Your task to perform on an android device: Show me popular games on the Play Store Image 0: 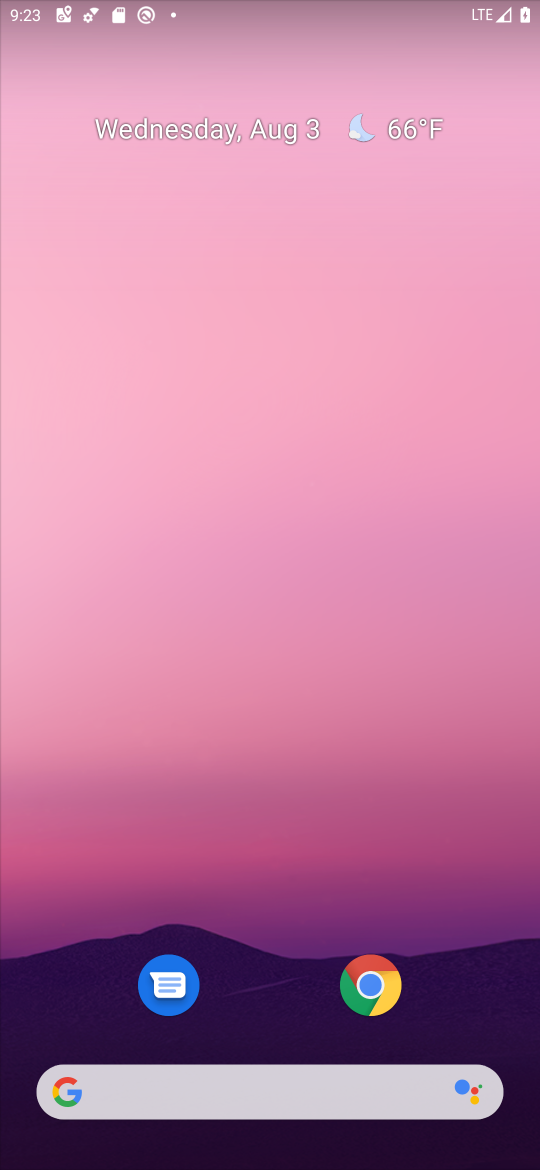
Step 0: drag from (259, 710) to (259, 352)
Your task to perform on an android device: Show me popular games on the Play Store Image 1: 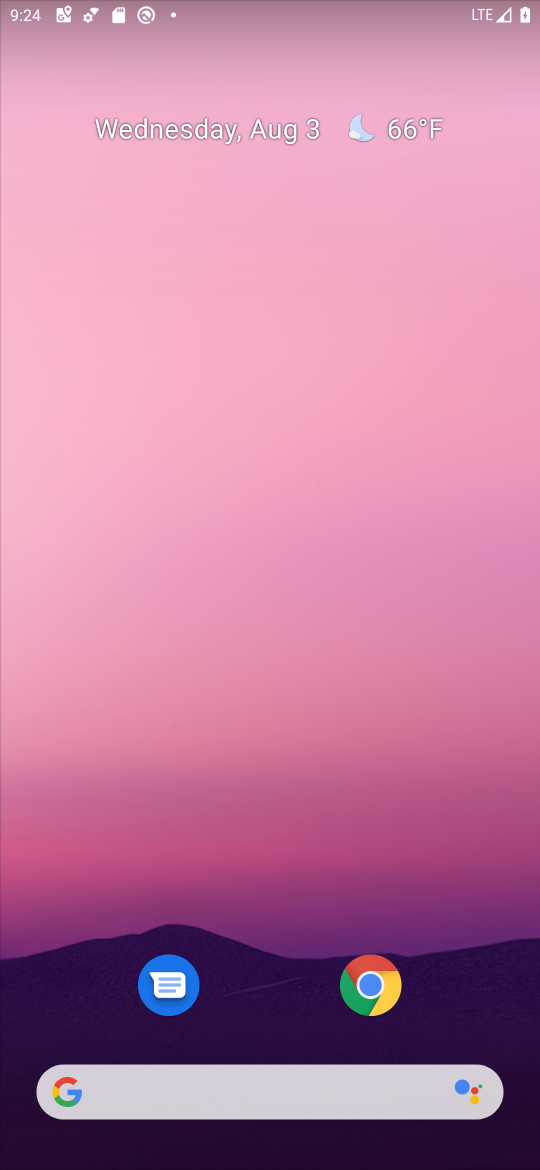
Step 1: drag from (276, 867) to (314, 61)
Your task to perform on an android device: Show me popular games on the Play Store Image 2: 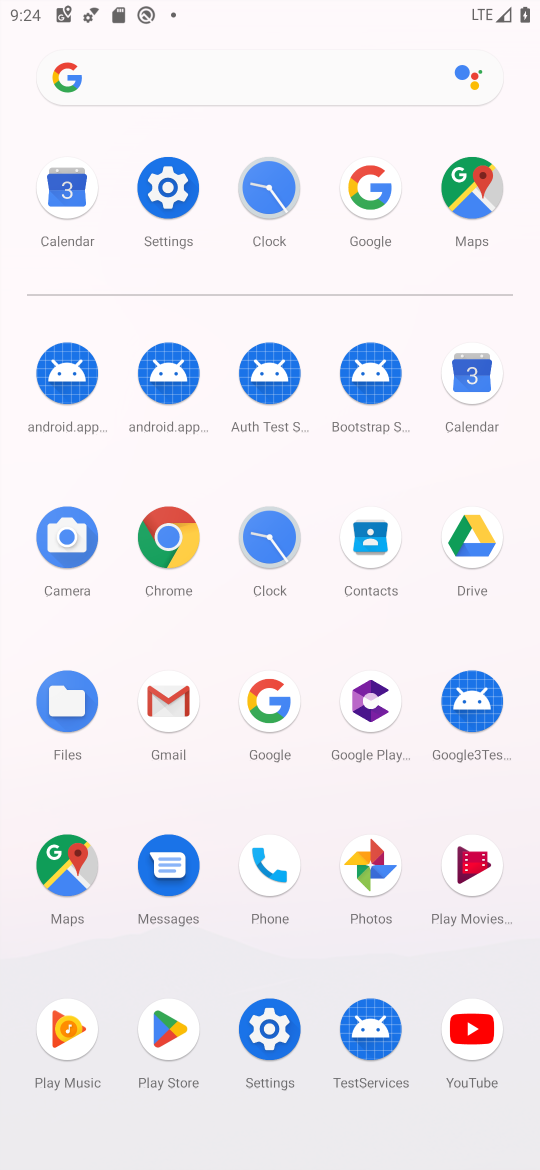
Step 2: click (178, 1016)
Your task to perform on an android device: Show me popular games on the Play Store Image 3: 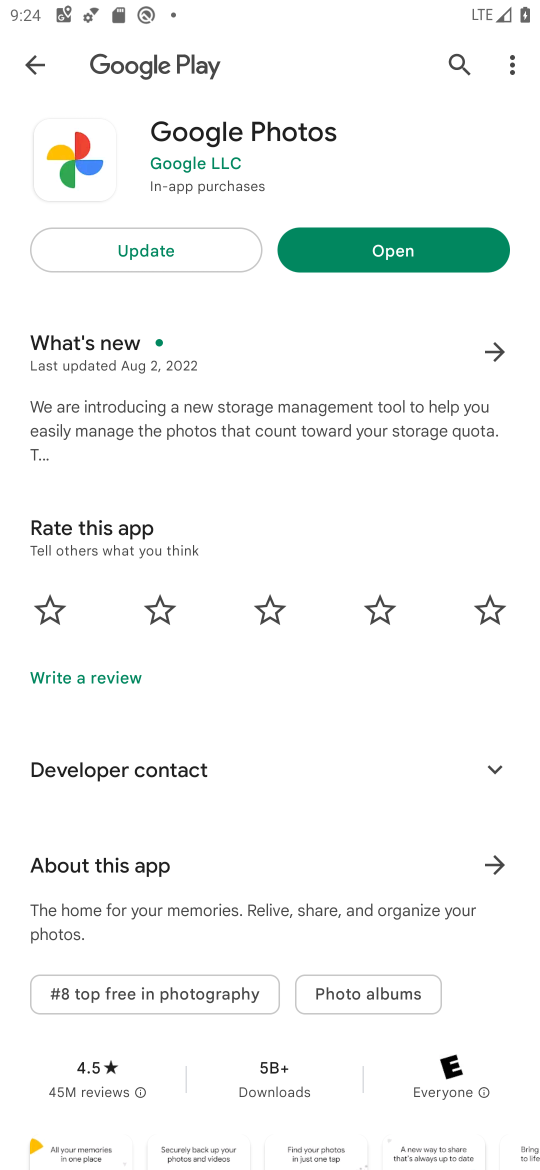
Step 3: click (28, 61)
Your task to perform on an android device: Show me popular games on the Play Store Image 4: 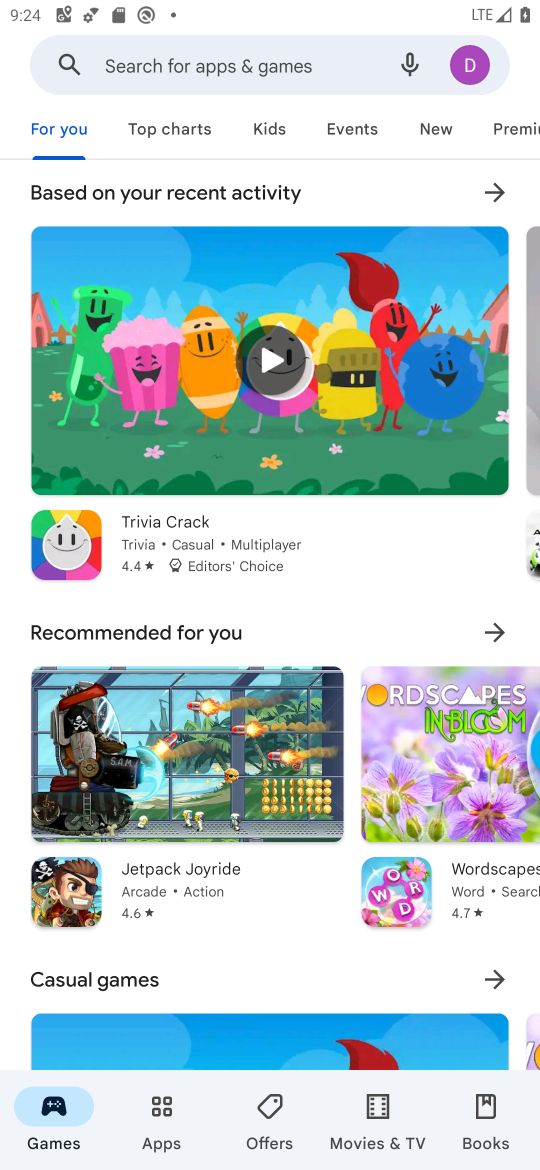
Step 4: click (161, 132)
Your task to perform on an android device: Show me popular games on the Play Store Image 5: 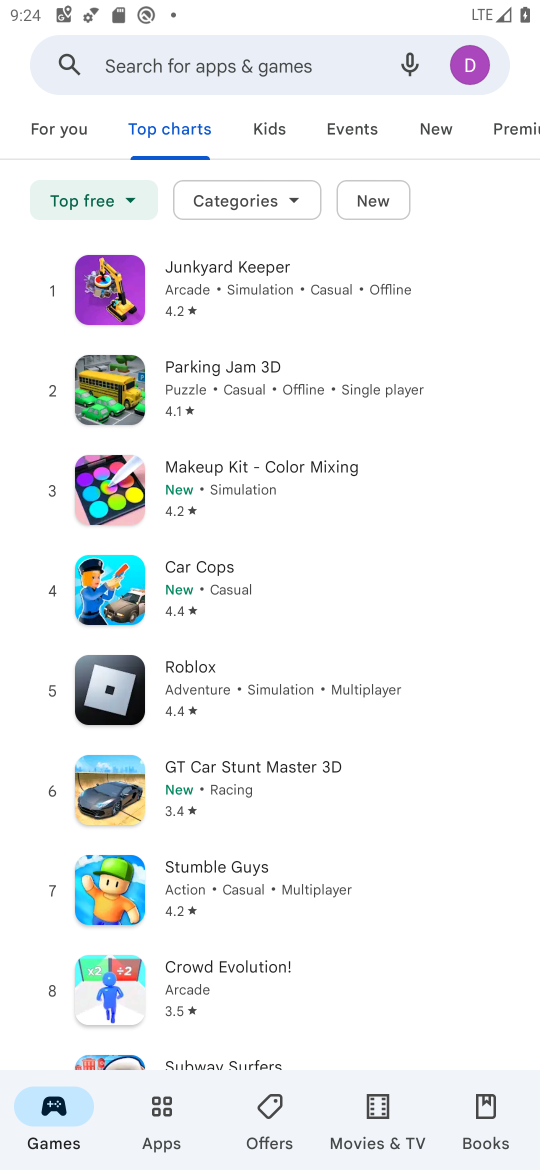
Step 5: task complete